Your task to perform on an android device: clear history in the chrome app Image 0: 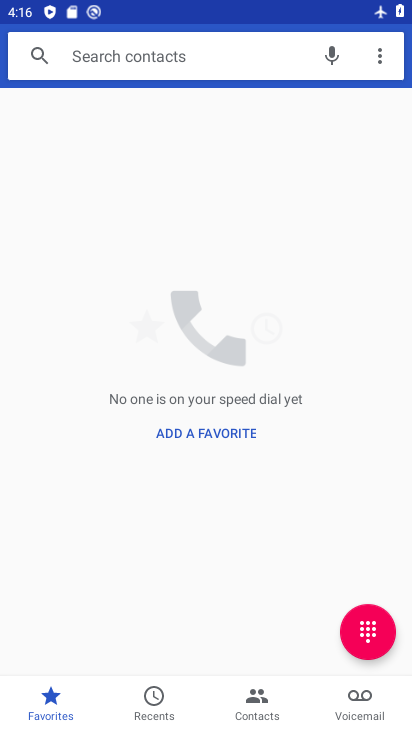
Step 0: press home button
Your task to perform on an android device: clear history in the chrome app Image 1: 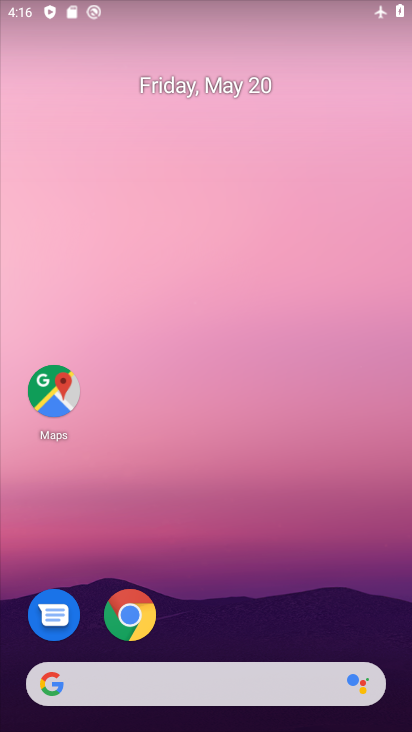
Step 1: drag from (209, 697) to (300, 109)
Your task to perform on an android device: clear history in the chrome app Image 2: 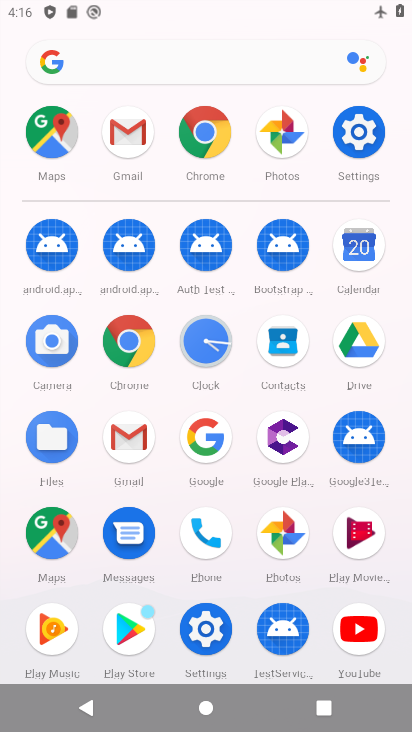
Step 2: click (214, 162)
Your task to perform on an android device: clear history in the chrome app Image 3: 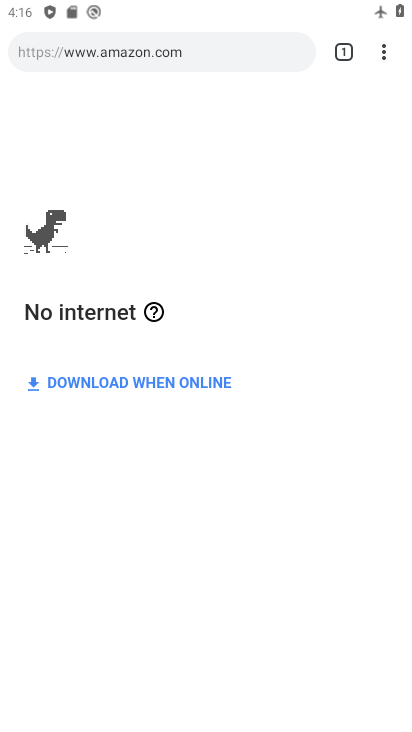
Step 3: click (377, 58)
Your task to perform on an android device: clear history in the chrome app Image 4: 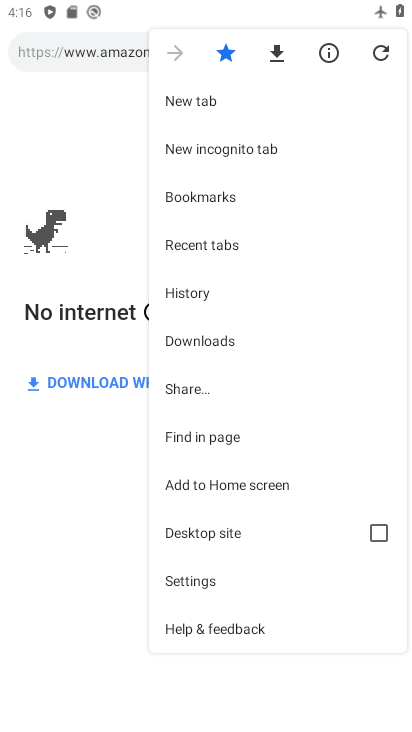
Step 4: click (231, 300)
Your task to perform on an android device: clear history in the chrome app Image 5: 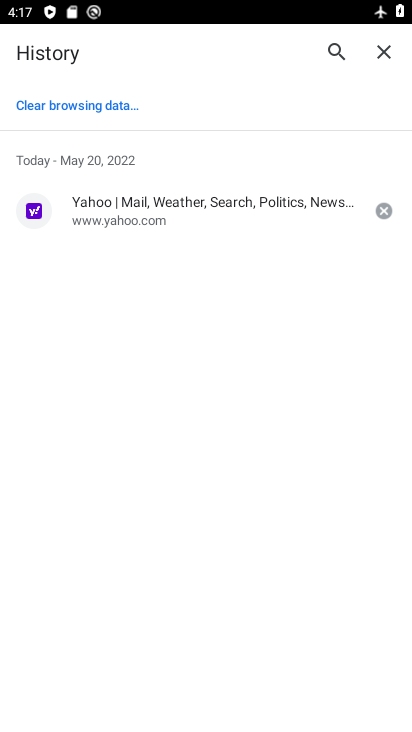
Step 5: click (84, 114)
Your task to perform on an android device: clear history in the chrome app Image 6: 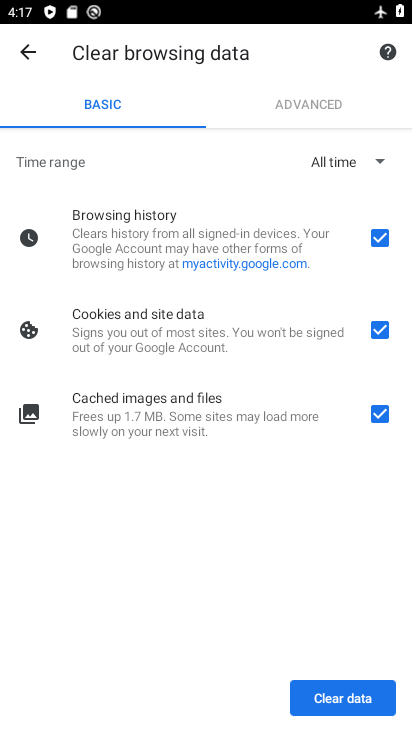
Step 6: click (334, 697)
Your task to perform on an android device: clear history in the chrome app Image 7: 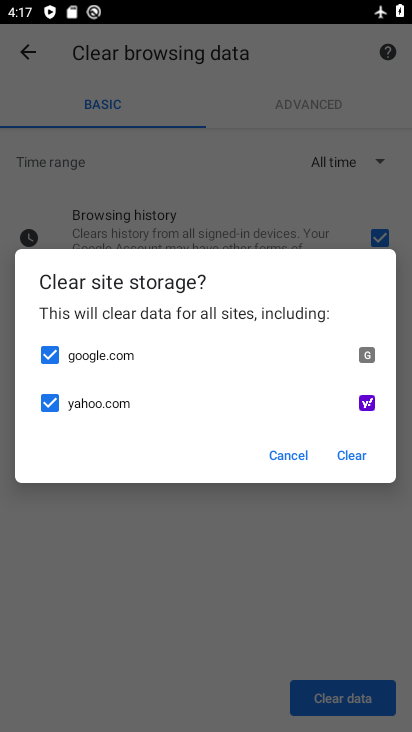
Step 7: click (346, 458)
Your task to perform on an android device: clear history in the chrome app Image 8: 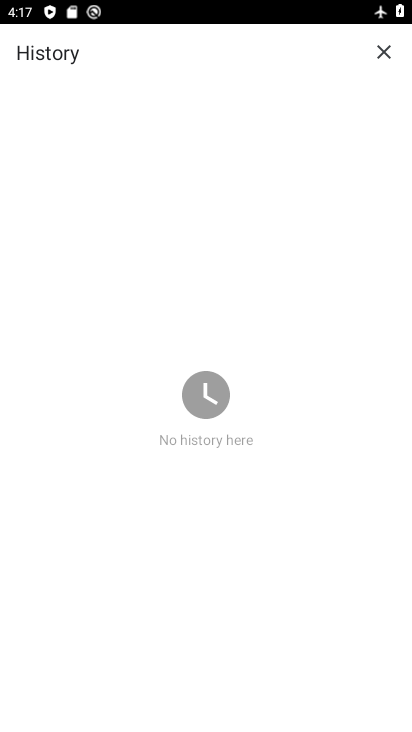
Step 8: task complete